Your task to perform on an android device: Do I have any events today? Image 0: 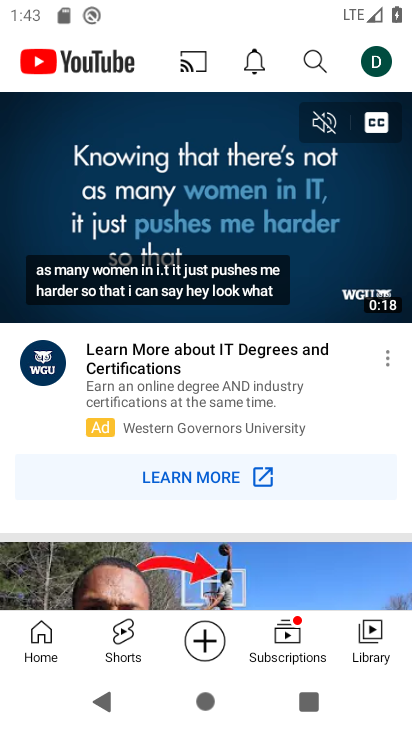
Step 0: press home button
Your task to perform on an android device: Do I have any events today? Image 1: 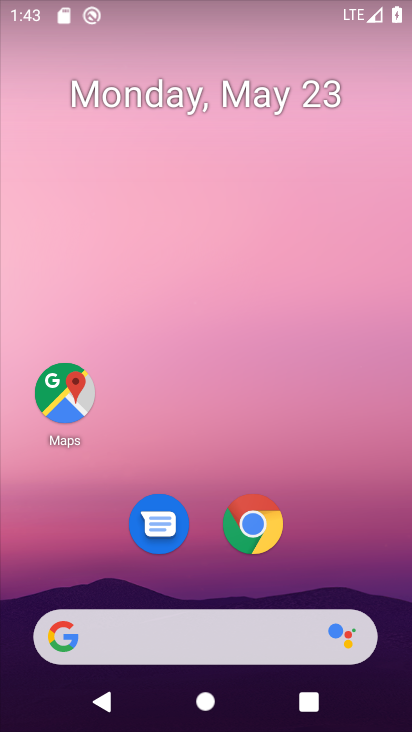
Step 1: drag from (219, 449) to (229, 28)
Your task to perform on an android device: Do I have any events today? Image 2: 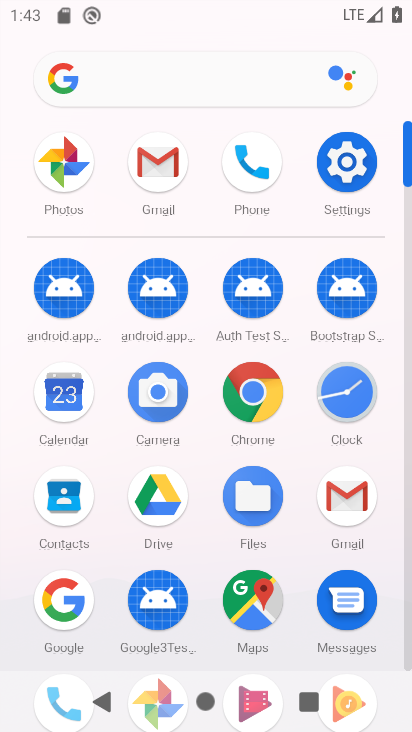
Step 2: click (71, 386)
Your task to perform on an android device: Do I have any events today? Image 3: 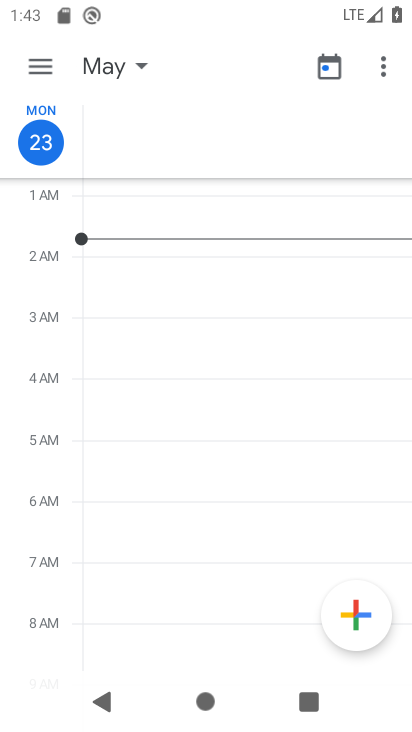
Step 3: click (44, 63)
Your task to perform on an android device: Do I have any events today? Image 4: 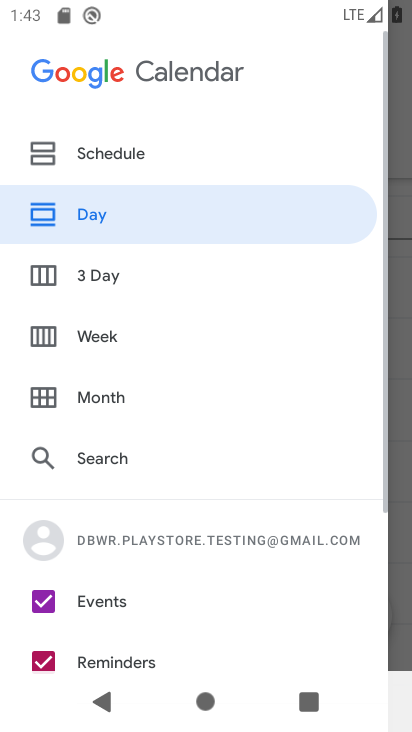
Step 4: click (96, 141)
Your task to perform on an android device: Do I have any events today? Image 5: 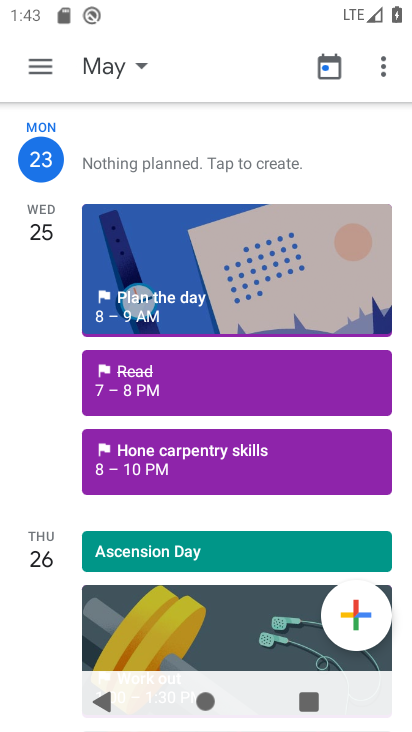
Step 5: task complete